Your task to perform on an android device: turn on showing notifications on the lock screen Image 0: 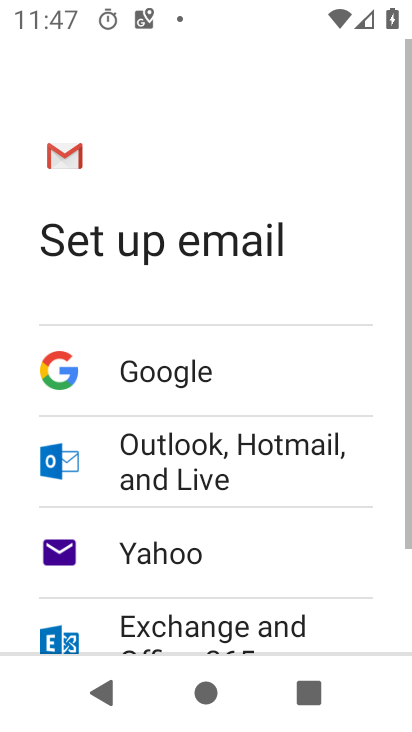
Step 0: press home button
Your task to perform on an android device: turn on showing notifications on the lock screen Image 1: 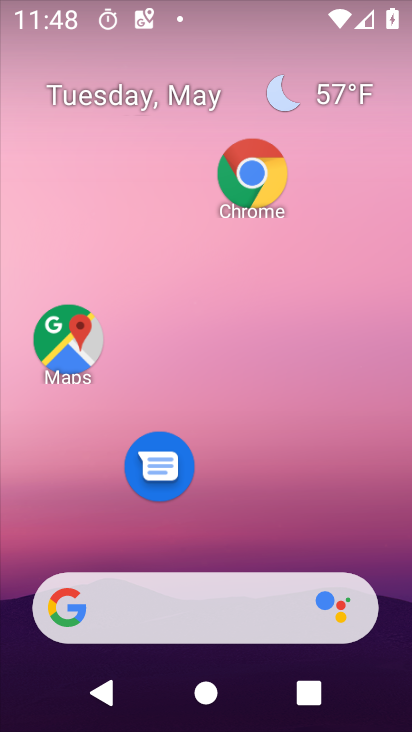
Step 1: click (144, 228)
Your task to perform on an android device: turn on showing notifications on the lock screen Image 2: 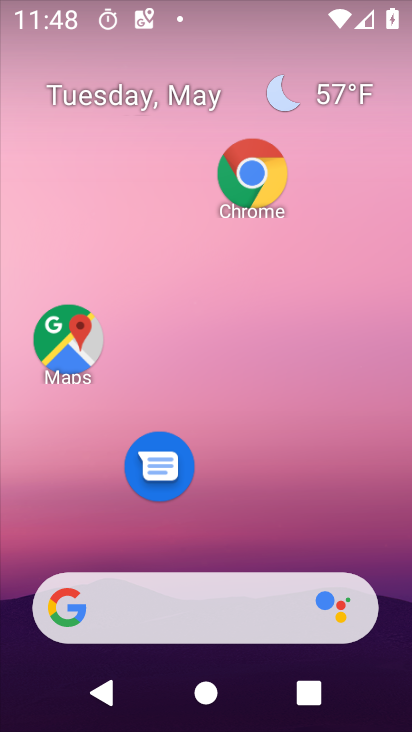
Step 2: drag from (198, 528) to (194, 70)
Your task to perform on an android device: turn on showing notifications on the lock screen Image 3: 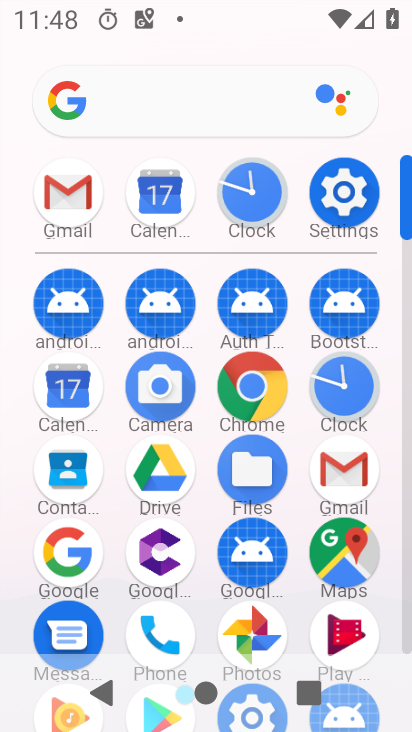
Step 3: drag from (236, 562) to (189, 52)
Your task to perform on an android device: turn on showing notifications on the lock screen Image 4: 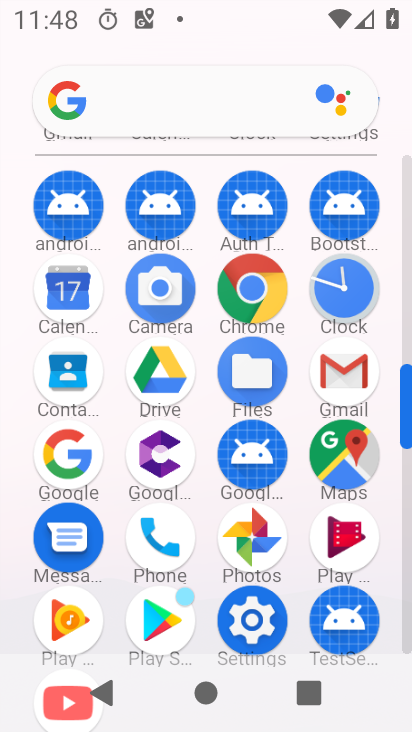
Step 4: click (240, 616)
Your task to perform on an android device: turn on showing notifications on the lock screen Image 5: 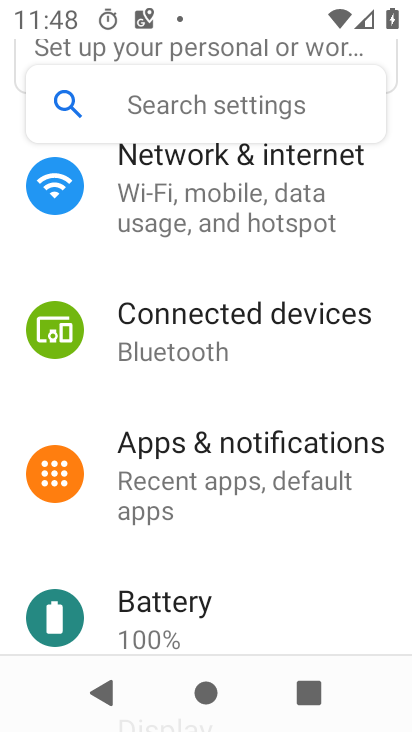
Step 5: drag from (220, 628) to (174, 290)
Your task to perform on an android device: turn on showing notifications on the lock screen Image 6: 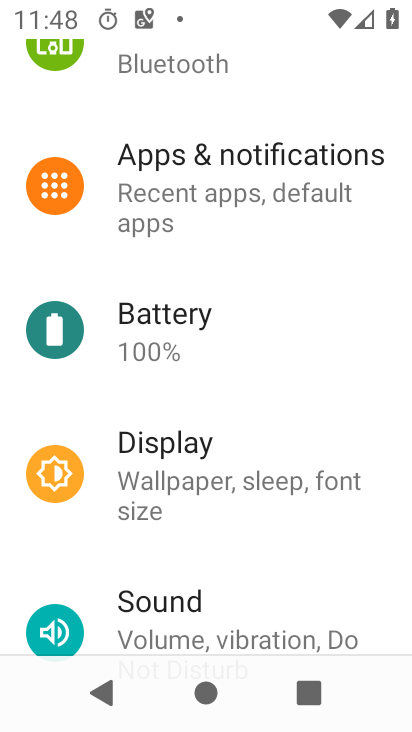
Step 6: drag from (215, 612) to (175, 306)
Your task to perform on an android device: turn on showing notifications on the lock screen Image 7: 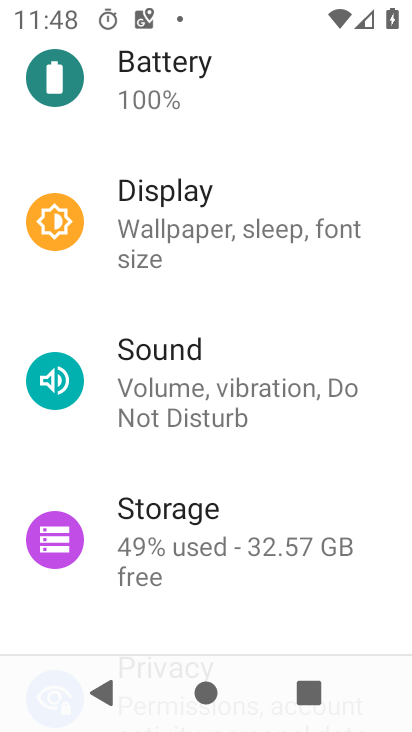
Step 7: drag from (223, 470) to (208, 329)
Your task to perform on an android device: turn on showing notifications on the lock screen Image 8: 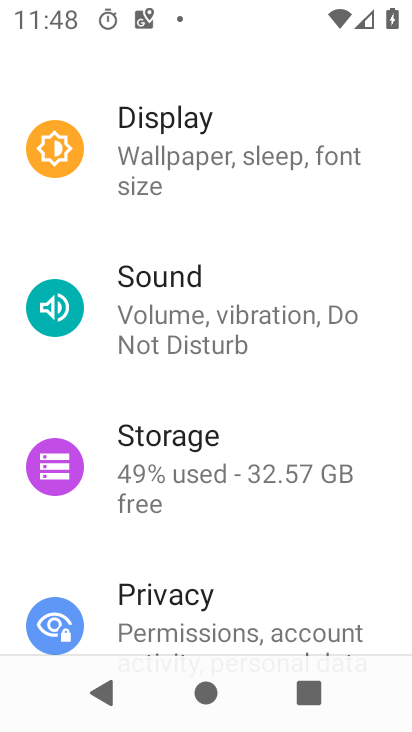
Step 8: click (206, 617)
Your task to perform on an android device: turn on showing notifications on the lock screen Image 9: 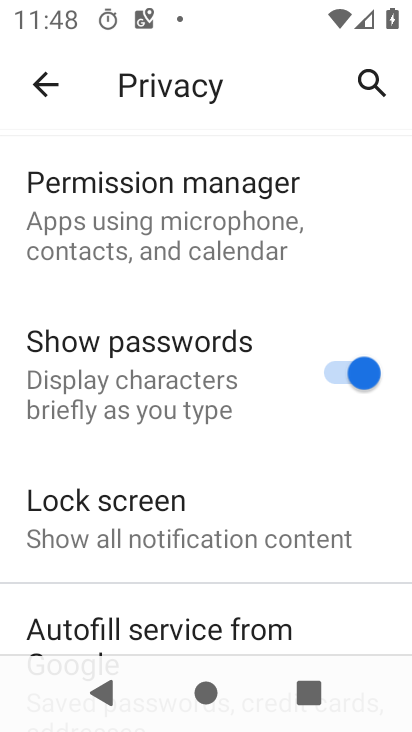
Step 9: click (171, 538)
Your task to perform on an android device: turn on showing notifications on the lock screen Image 10: 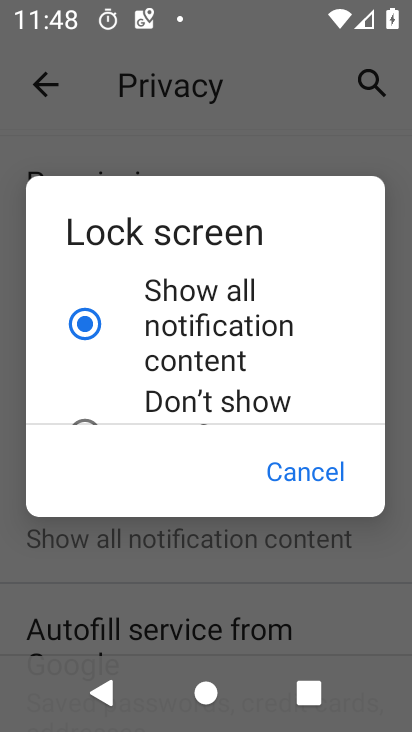
Step 10: task complete